Your task to perform on an android device: open a new tab in the chrome app Image 0: 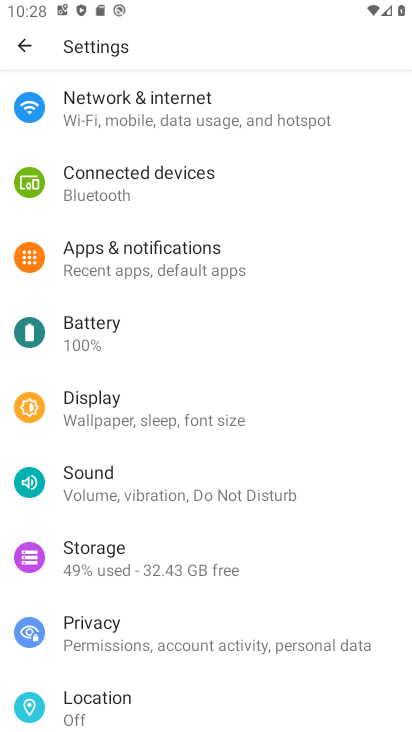
Step 0: press home button
Your task to perform on an android device: open a new tab in the chrome app Image 1: 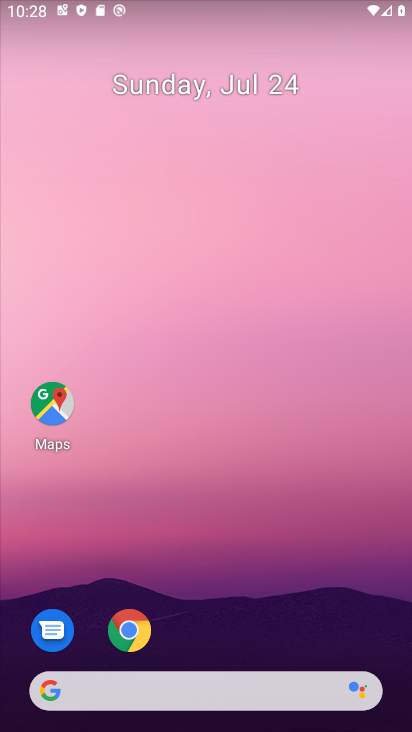
Step 1: click (127, 650)
Your task to perform on an android device: open a new tab in the chrome app Image 2: 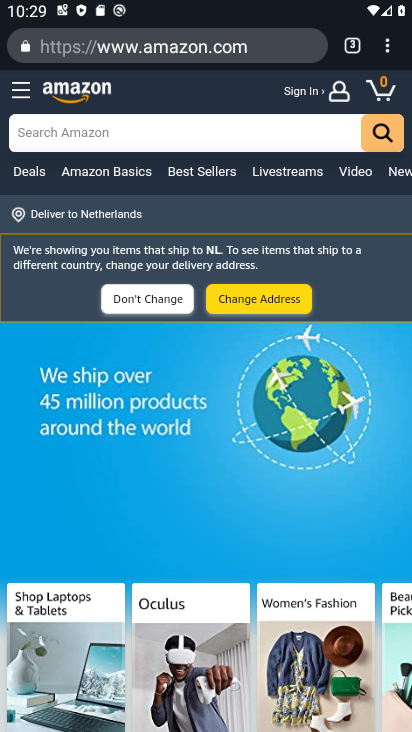
Step 2: click (356, 55)
Your task to perform on an android device: open a new tab in the chrome app Image 3: 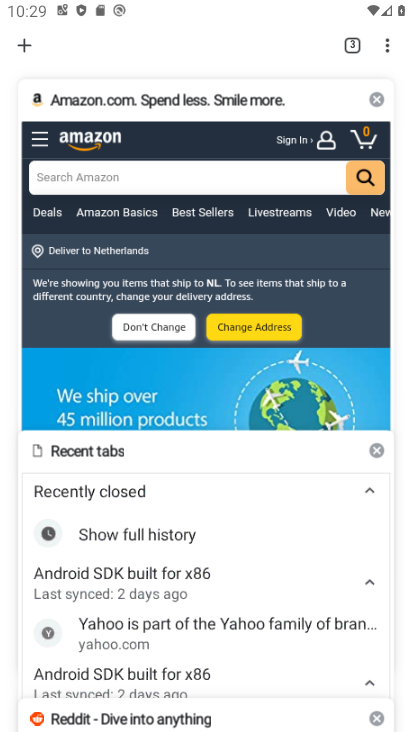
Step 3: click (24, 46)
Your task to perform on an android device: open a new tab in the chrome app Image 4: 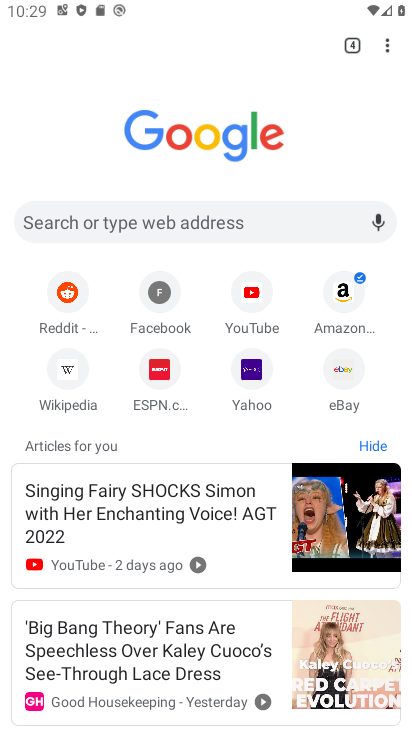
Step 4: task complete